Your task to perform on an android device: Show me recent news Image 0: 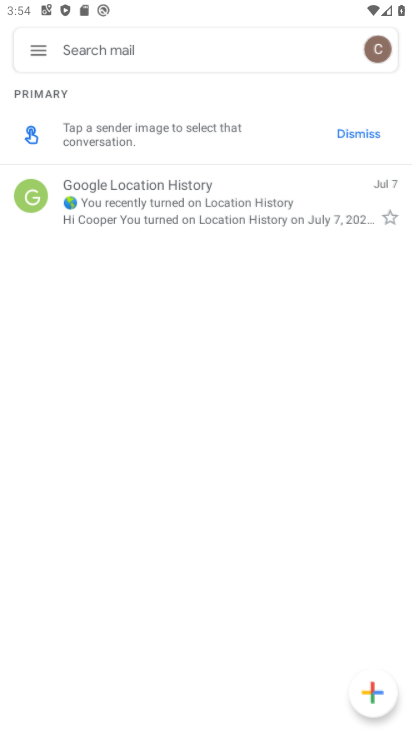
Step 0: click (123, 611)
Your task to perform on an android device: Show me recent news Image 1: 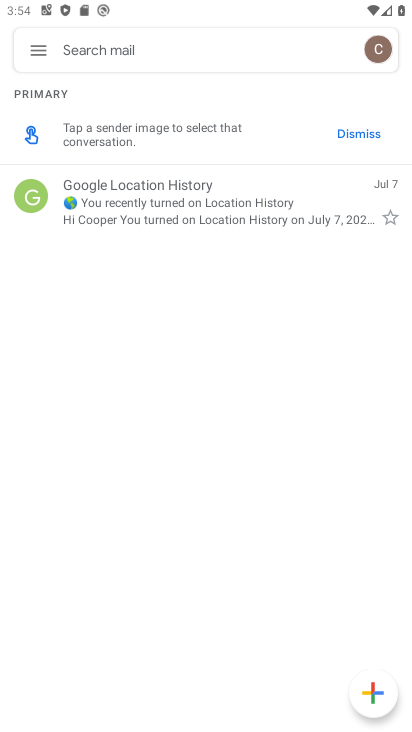
Step 1: press home button
Your task to perform on an android device: Show me recent news Image 2: 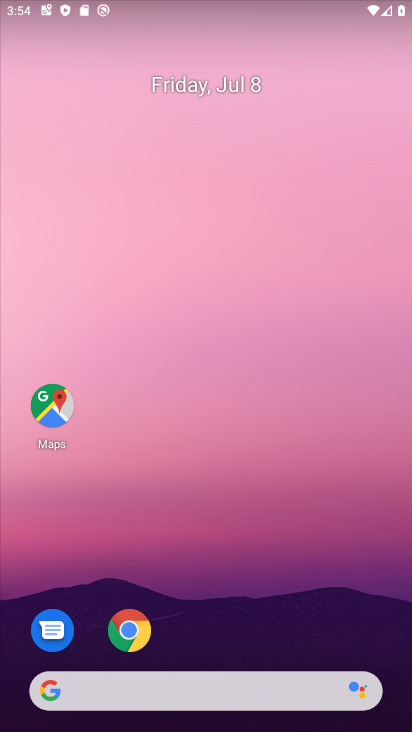
Step 2: click (217, 687)
Your task to perform on an android device: Show me recent news Image 3: 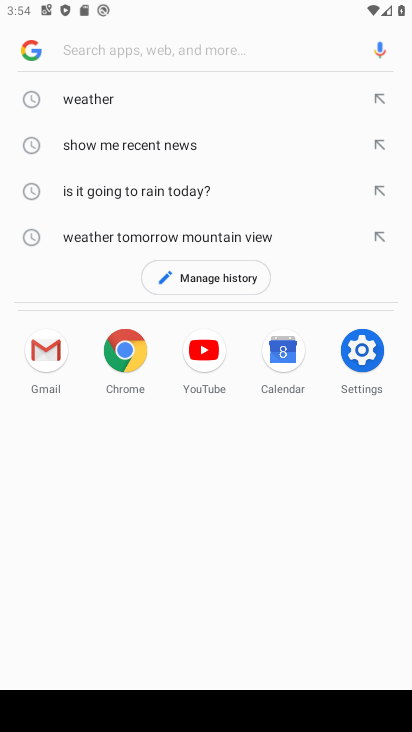
Step 3: click (192, 137)
Your task to perform on an android device: Show me recent news Image 4: 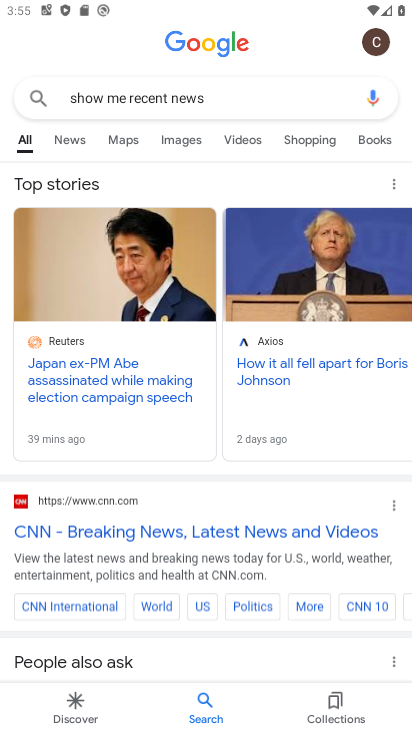
Step 4: task complete